Your task to perform on an android device: find photos in the google photos app Image 0: 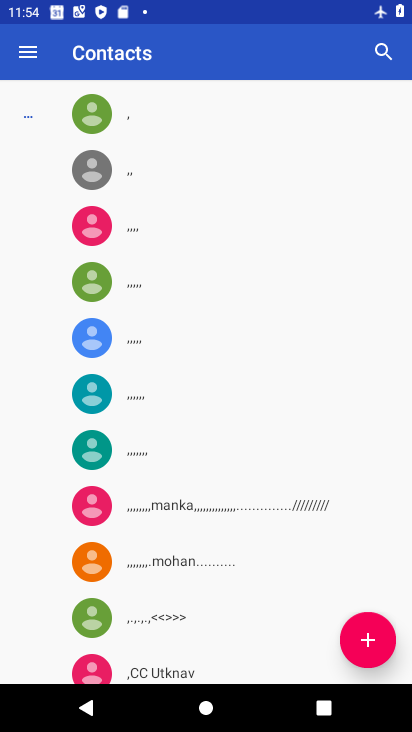
Step 0: press home button
Your task to perform on an android device: find photos in the google photos app Image 1: 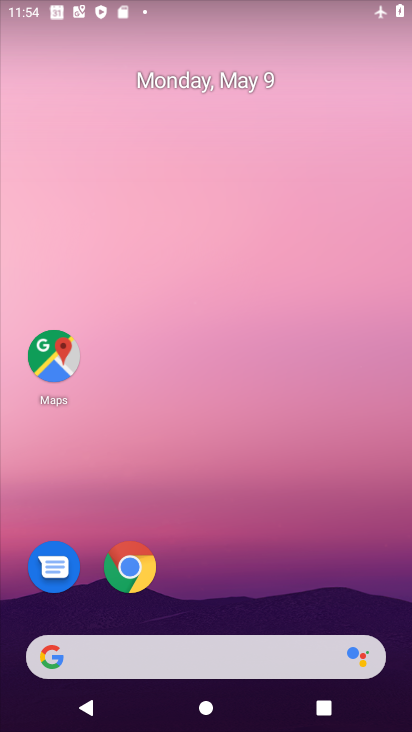
Step 1: drag from (344, 627) to (287, 367)
Your task to perform on an android device: find photos in the google photos app Image 2: 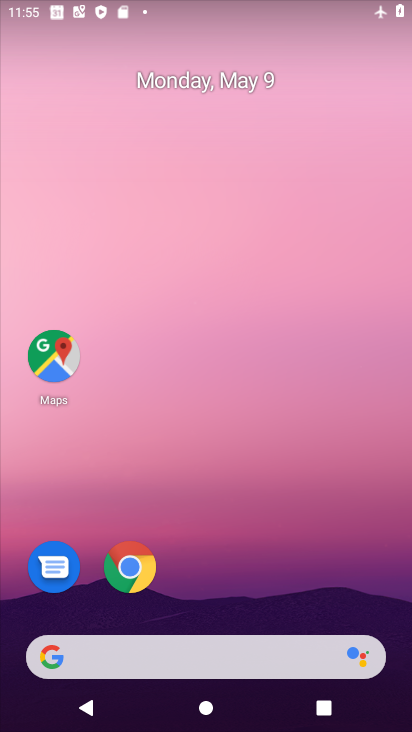
Step 2: drag from (392, 615) to (360, 0)
Your task to perform on an android device: find photos in the google photos app Image 3: 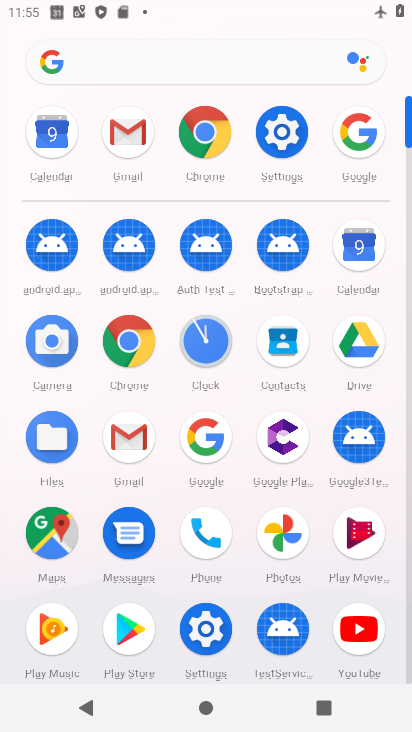
Step 3: click (267, 547)
Your task to perform on an android device: find photos in the google photos app Image 4: 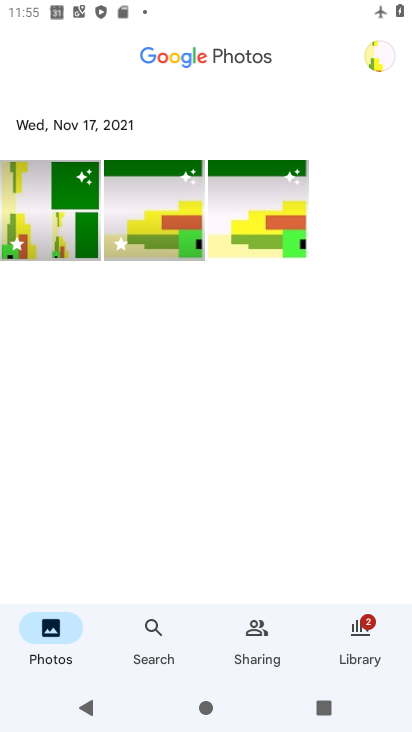
Step 4: task complete